Your task to perform on an android device: change the clock style Image 0: 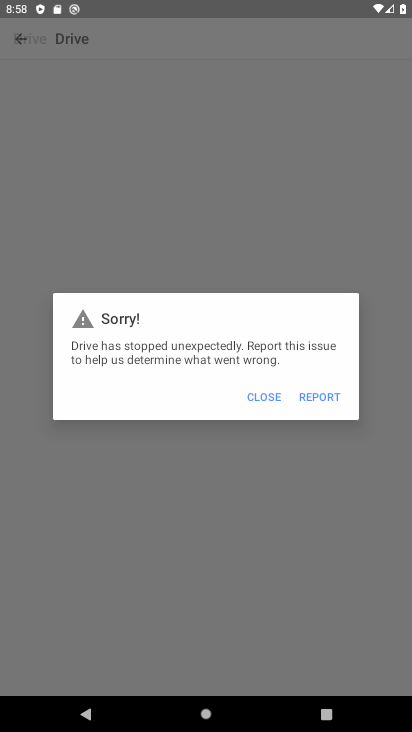
Step 0: click (131, 609)
Your task to perform on an android device: change the clock style Image 1: 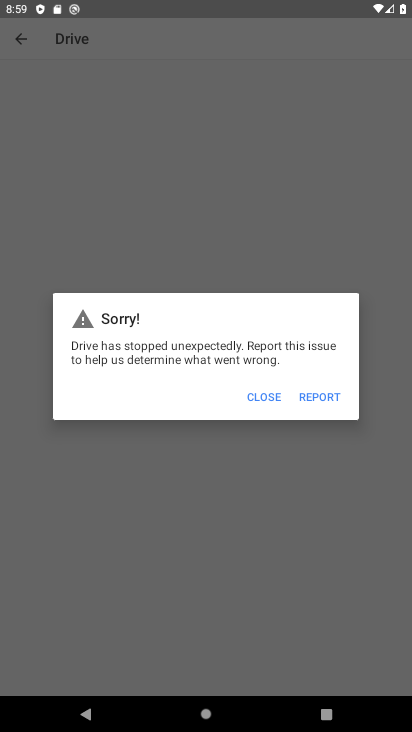
Step 1: press home button
Your task to perform on an android device: change the clock style Image 2: 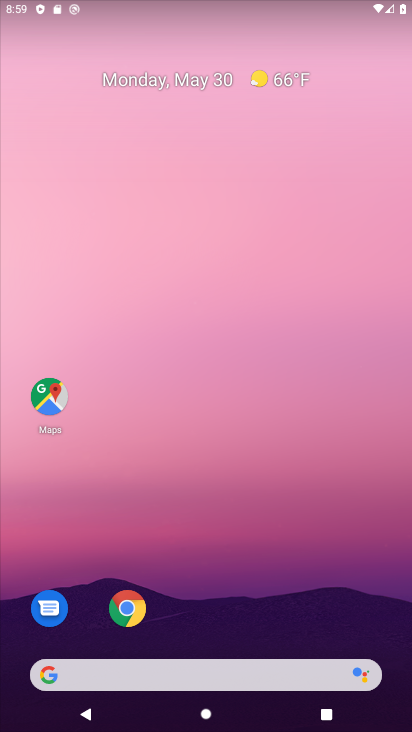
Step 2: drag from (233, 728) to (177, 205)
Your task to perform on an android device: change the clock style Image 3: 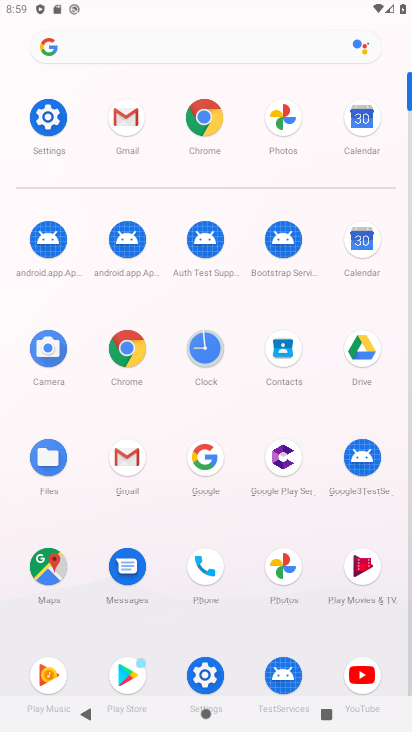
Step 3: click (205, 348)
Your task to perform on an android device: change the clock style Image 4: 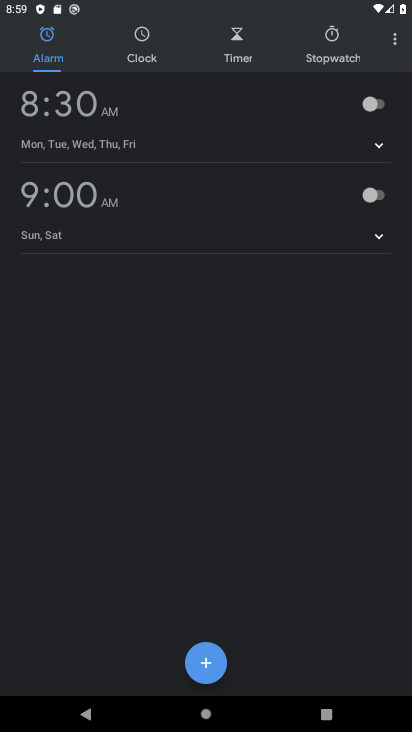
Step 4: click (396, 44)
Your task to perform on an android device: change the clock style Image 5: 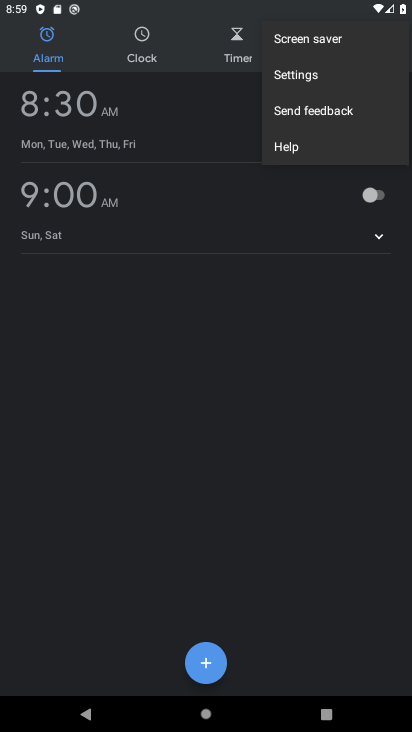
Step 5: click (293, 76)
Your task to perform on an android device: change the clock style Image 6: 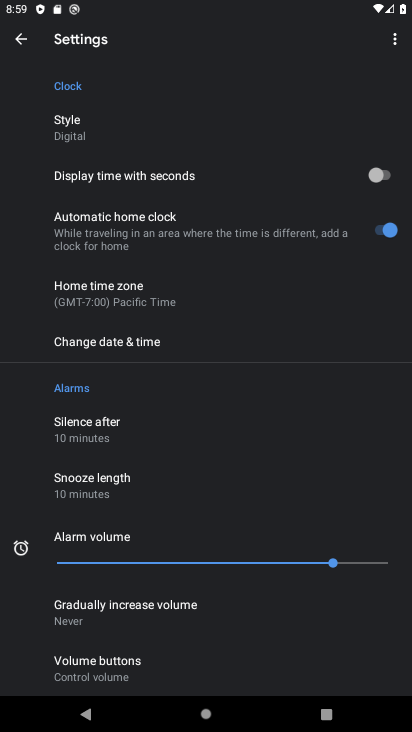
Step 6: click (67, 123)
Your task to perform on an android device: change the clock style Image 7: 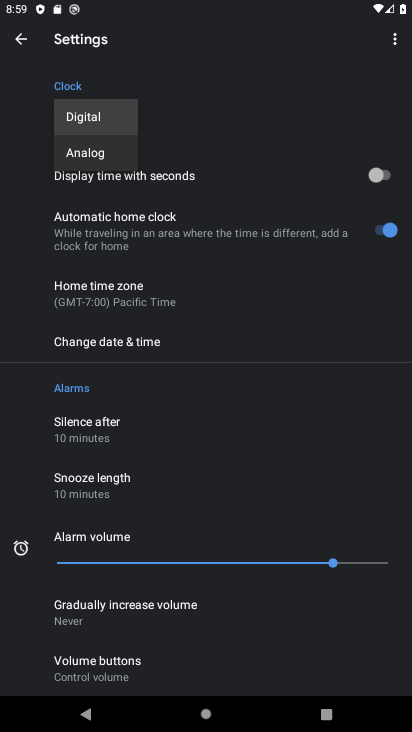
Step 7: click (78, 149)
Your task to perform on an android device: change the clock style Image 8: 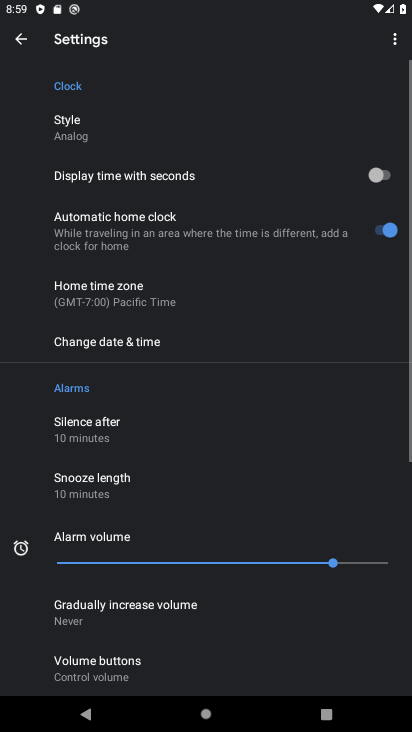
Step 8: task complete